Your task to perform on an android device: Open calendar and show me the second week of next month Image 0: 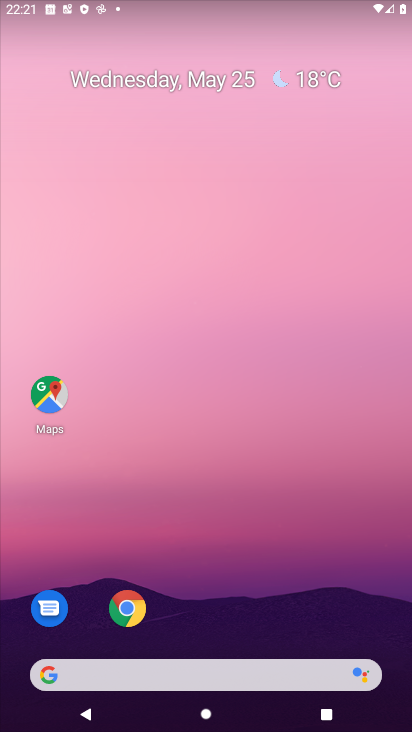
Step 0: drag from (247, 343) to (193, 50)
Your task to perform on an android device: Open calendar and show me the second week of next month Image 1: 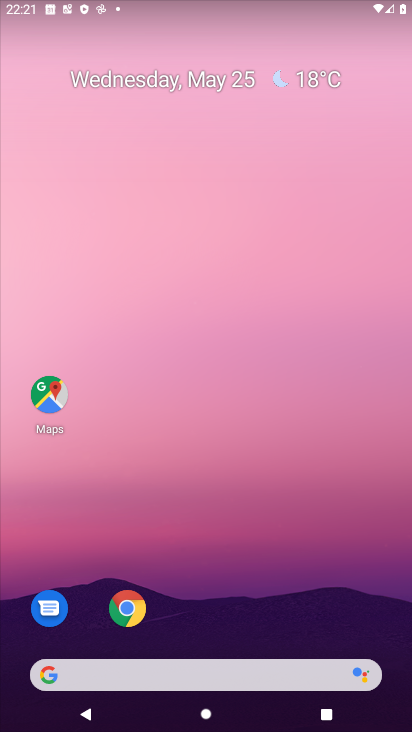
Step 1: drag from (277, 565) to (160, 26)
Your task to perform on an android device: Open calendar and show me the second week of next month Image 2: 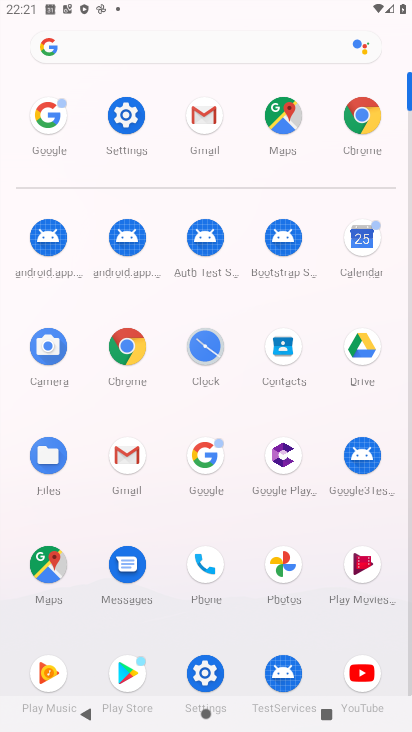
Step 2: click (359, 239)
Your task to perform on an android device: Open calendar and show me the second week of next month Image 3: 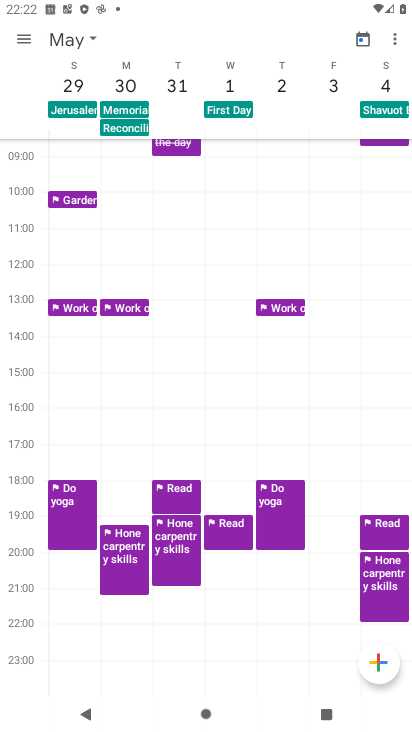
Step 3: click (87, 37)
Your task to perform on an android device: Open calendar and show me the second week of next month Image 4: 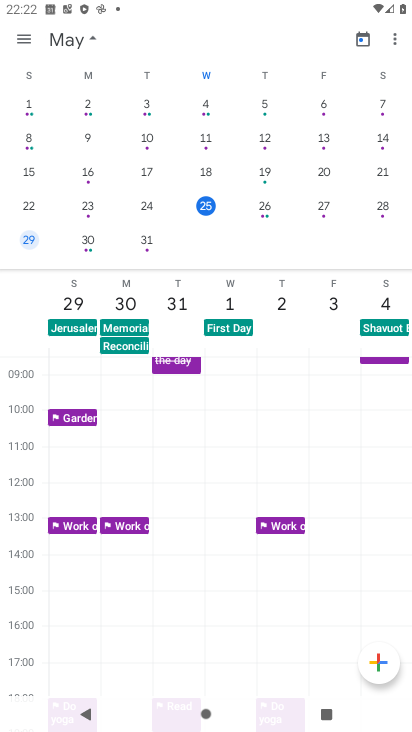
Step 4: drag from (358, 180) to (21, 362)
Your task to perform on an android device: Open calendar and show me the second week of next month Image 5: 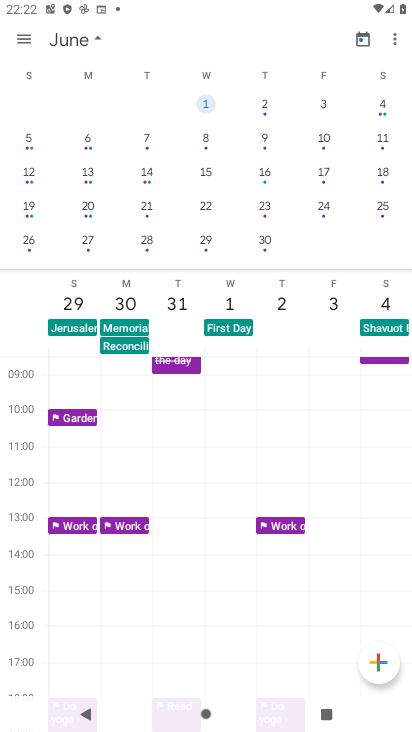
Step 5: click (27, 146)
Your task to perform on an android device: Open calendar and show me the second week of next month Image 6: 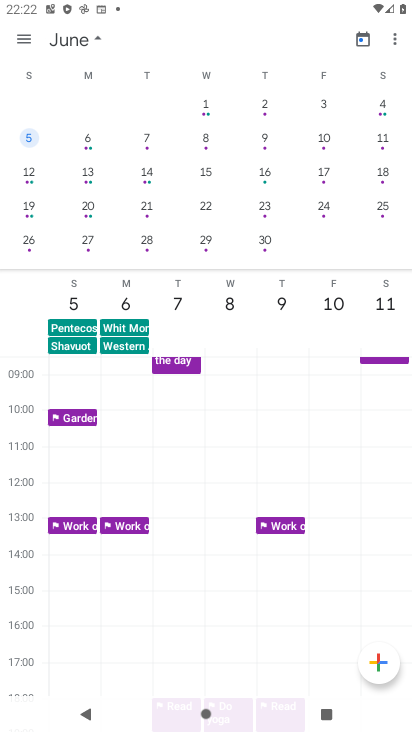
Step 6: task complete